Your task to perform on an android device: Check the settings for the Amazon Shopping app Image 0: 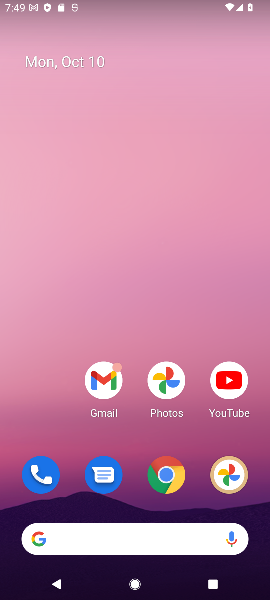
Step 0: drag from (139, 501) to (98, 82)
Your task to perform on an android device: Check the settings for the Amazon Shopping app Image 1: 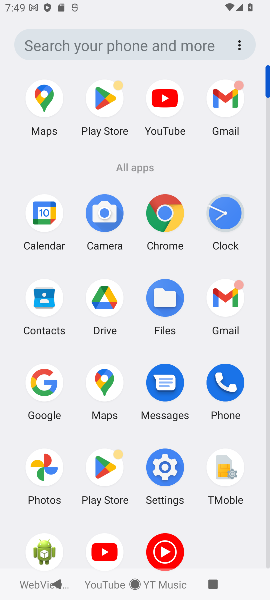
Step 1: click (97, 464)
Your task to perform on an android device: Check the settings for the Amazon Shopping app Image 2: 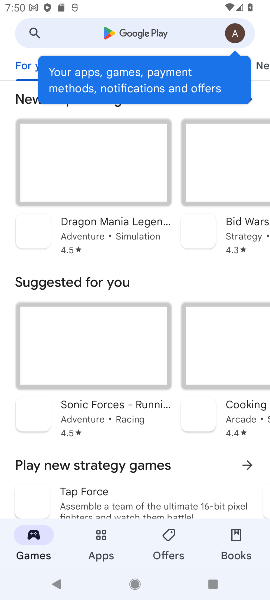
Step 2: click (130, 39)
Your task to perform on an android device: Check the settings for the Amazon Shopping app Image 3: 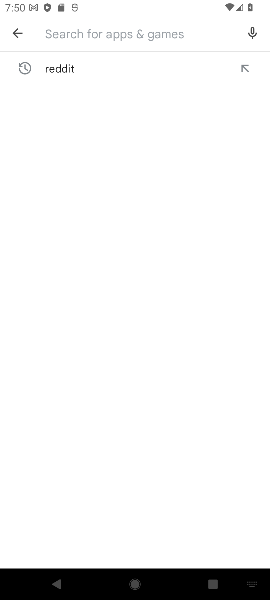
Step 3: type "amazon shopping app"
Your task to perform on an android device: Check the settings for the Amazon Shopping app Image 4: 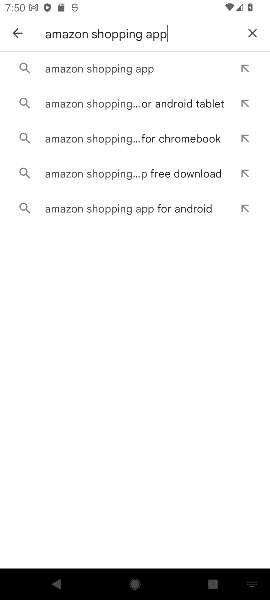
Step 4: click (109, 60)
Your task to perform on an android device: Check the settings for the Amazon Shopping app Image 5: 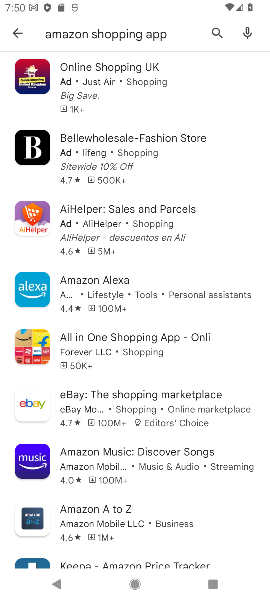
Step 5: task complete